Your task to perform on an android device: Open the stopwatch Image 0: 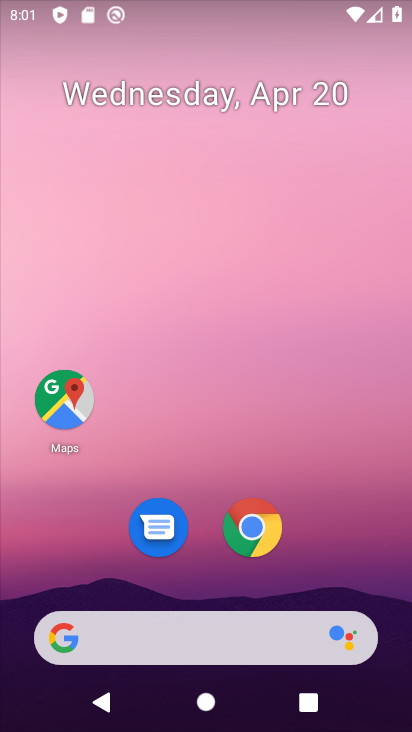
Step 0: drag from (220, 609) to (200, 227)
Your task to perform on an android device: Open the stopwatch Image 1: 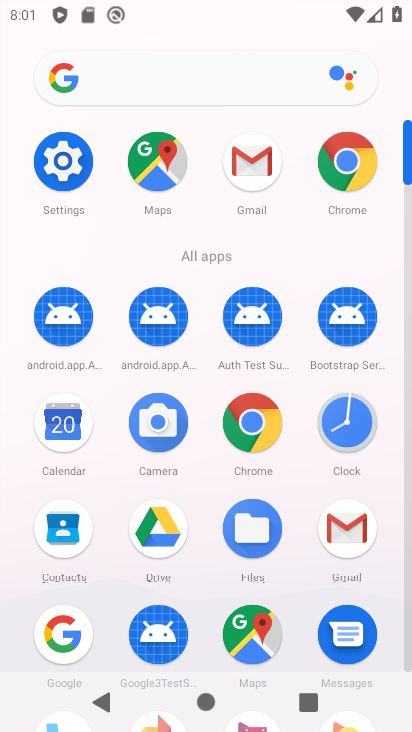
Step 1: click (346, 444)
Your task to perform on an android device: Open the stopwatch Image 2: 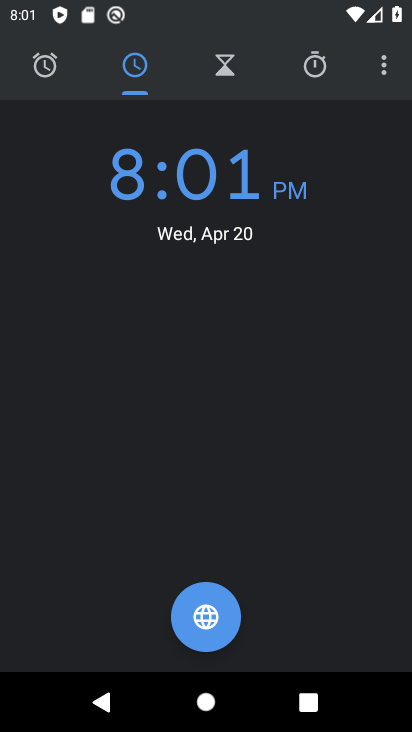
Step 2: click (313, 70)
Your task to perform on an android device: Open the stopwatch Image 3: 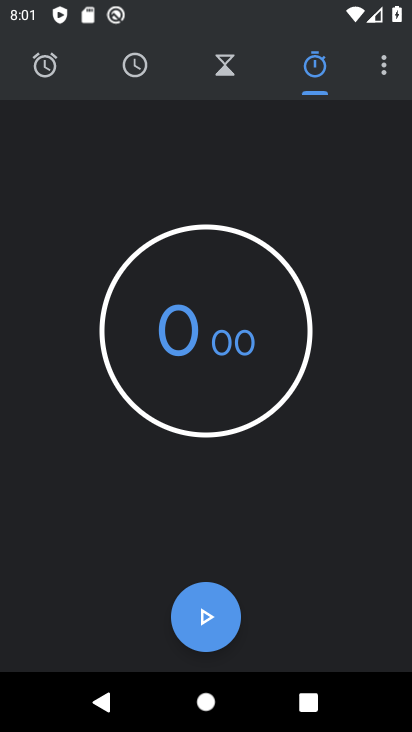
Step 3: task complete